Your task to perform on an android device: check android version Image 0: 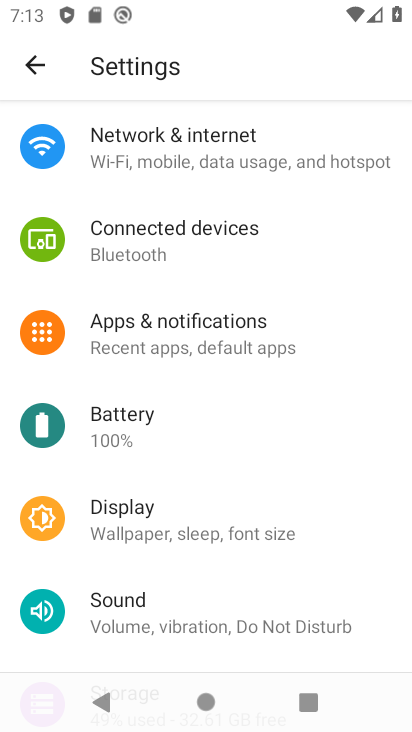
Step 0: drag from (184, 187) to (274, 509)
Your task to perform on an android device: check android version Image 1: 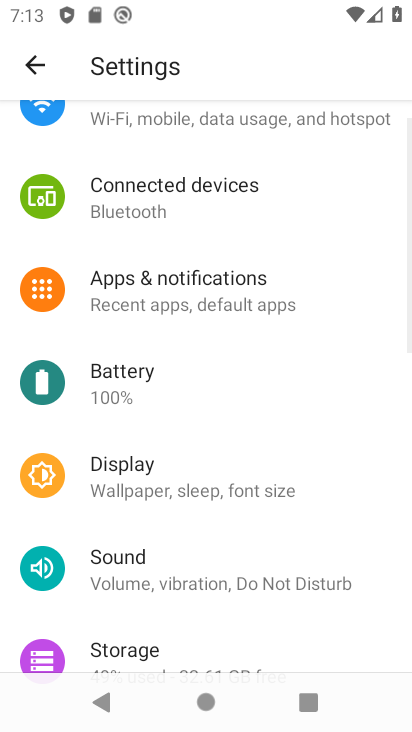
Step 1: drag from (180, 188) to (288, 563)
Your task to perform on an android device: check android version Image 2: 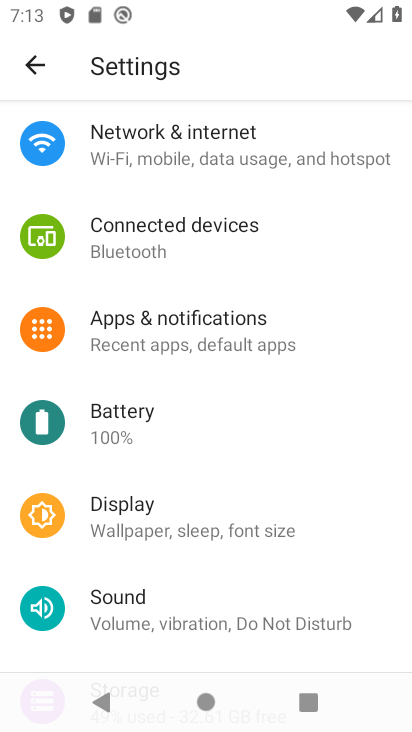
Step 2: click (48, 64)
Your task to perform on an android device: check android version Image 3: 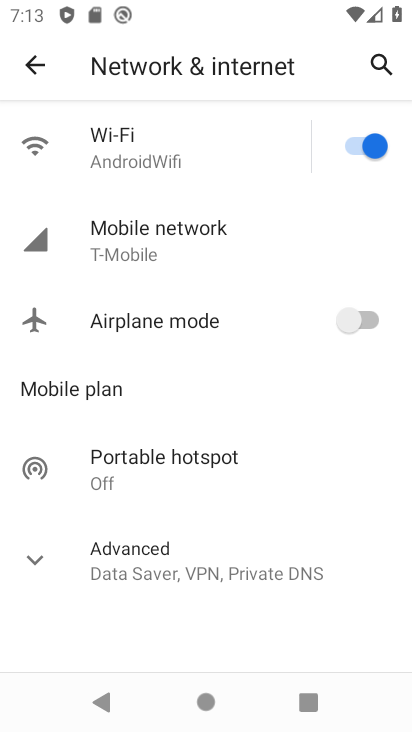
Step 3: click (36, 57)
Your task to perform on an android device: check android version Image 4: 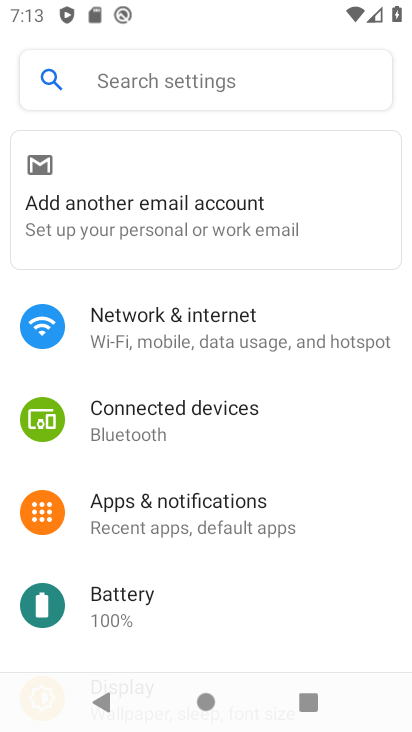
Step 4: click (129, 92)
Your task to perform on an android device: check android version Image 5: 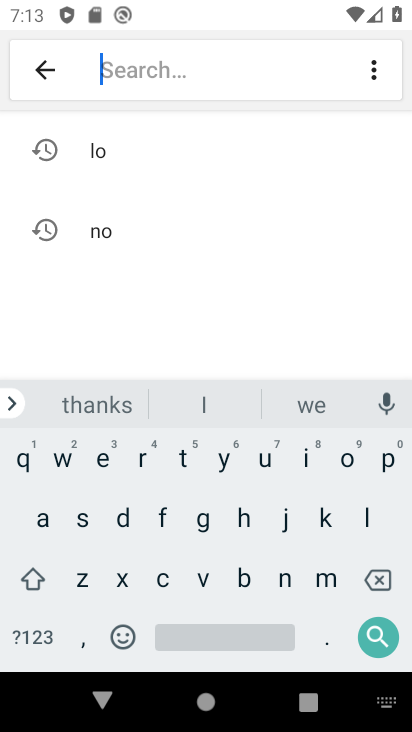
Step 5: click (38, 538)
Your task to perform on an android device: check android version Image 6: 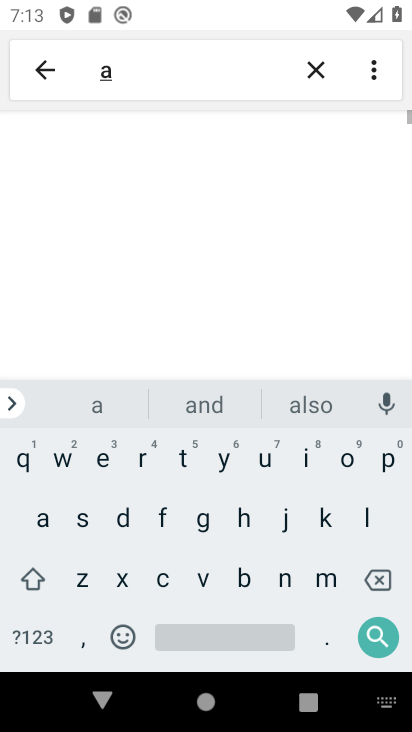
Step 6: click (289, 578)
Your task to perform on an android device: check android version Image 7: 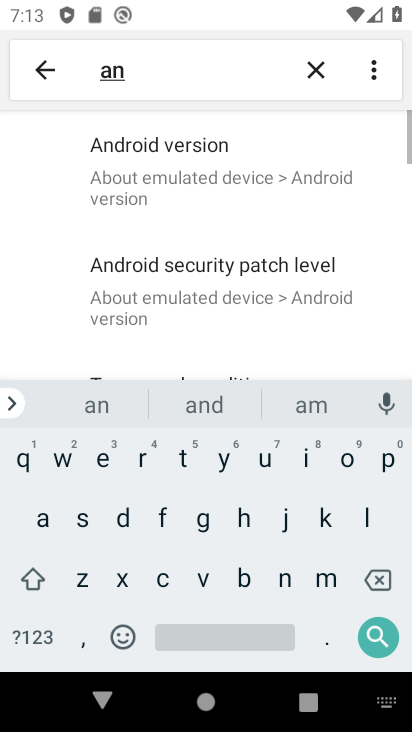
Step 7: click (192, 149)
Your task to perform on an android device: check android version Image 8: 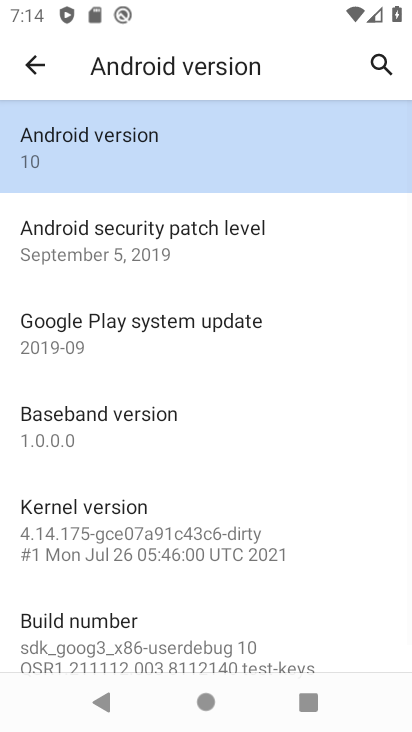
Step 8: task complete